Your task to perform on an android device: see tabs open on other devices in the chrome app Image 0: 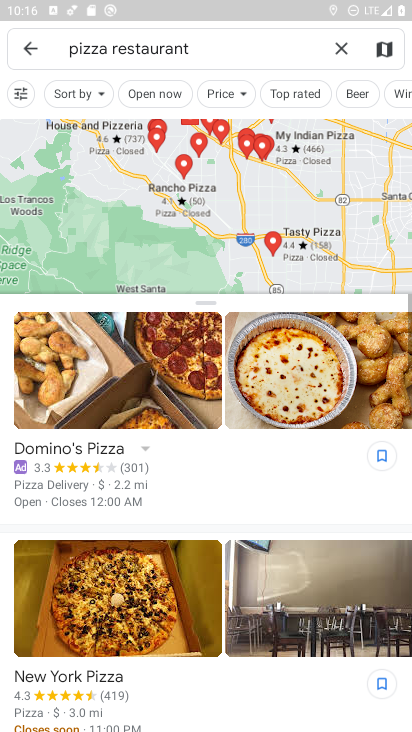
Step 0: press home button
Your task to perform on an android device: see tabs open on other devices in the chrome app Image 1: 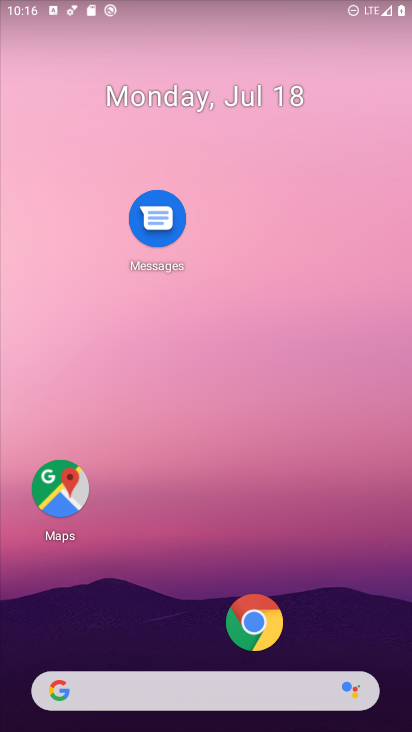
Step 1: drag from (318, 680) to (295, 182)
Your task to perform on an android device: see tabs open on other devices in the chrome app Image 2: 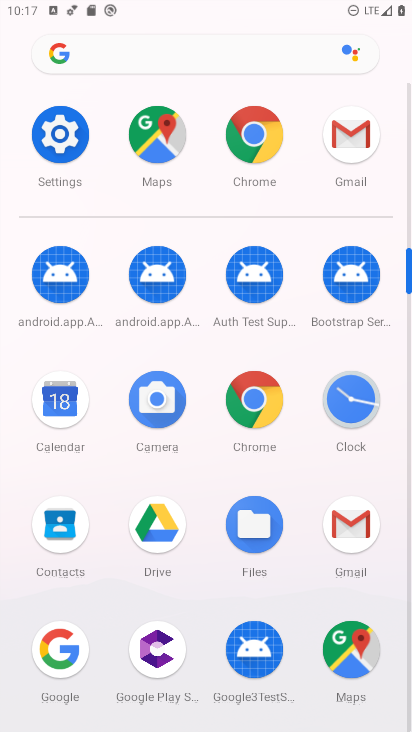
Step 2: click (234, 406)
Your task to perform on an android device: see tabs open on other devices in the chrome app Image 3: 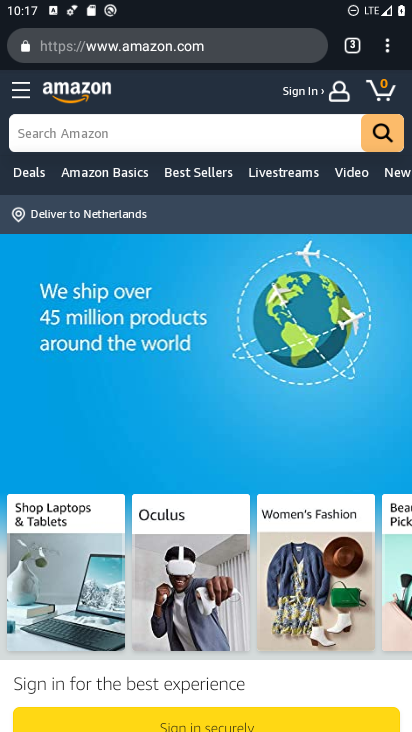
Step 3: task complete